Your task to perform on an android device: open app "Expedia: Hotels, Flights & Car" Image 0: 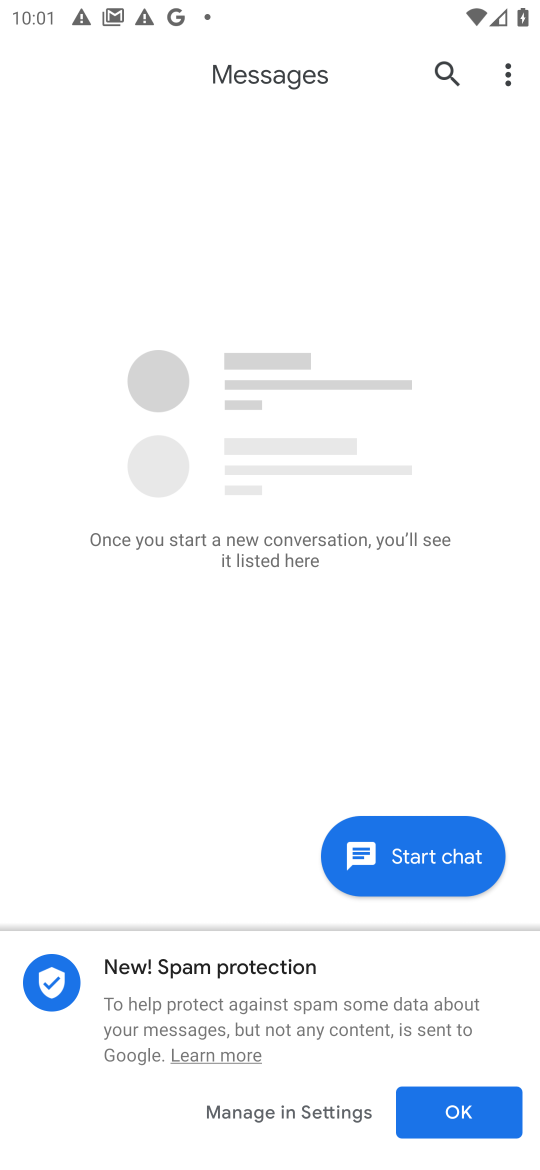
Step 0: press home button
Your task to perform on an android device: open app "Expedia: Hotels, Flights & Car" Image 1: 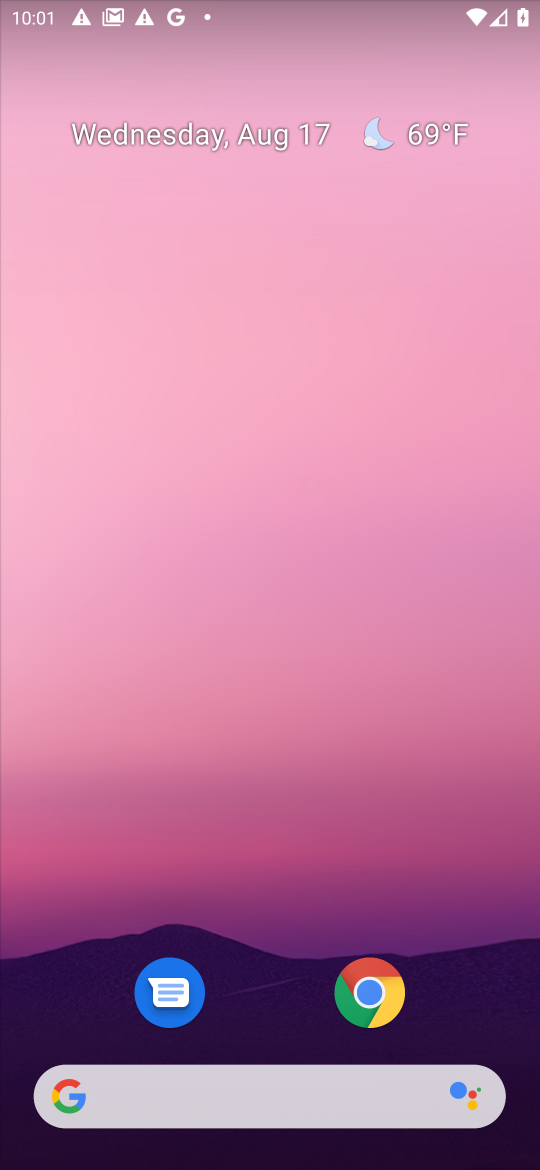
Step 1: drag from (461, 974) to (529, 1126)
Your task to perform on an android device: open app "Expedia: Hotels, Flights & Car" Image 2: 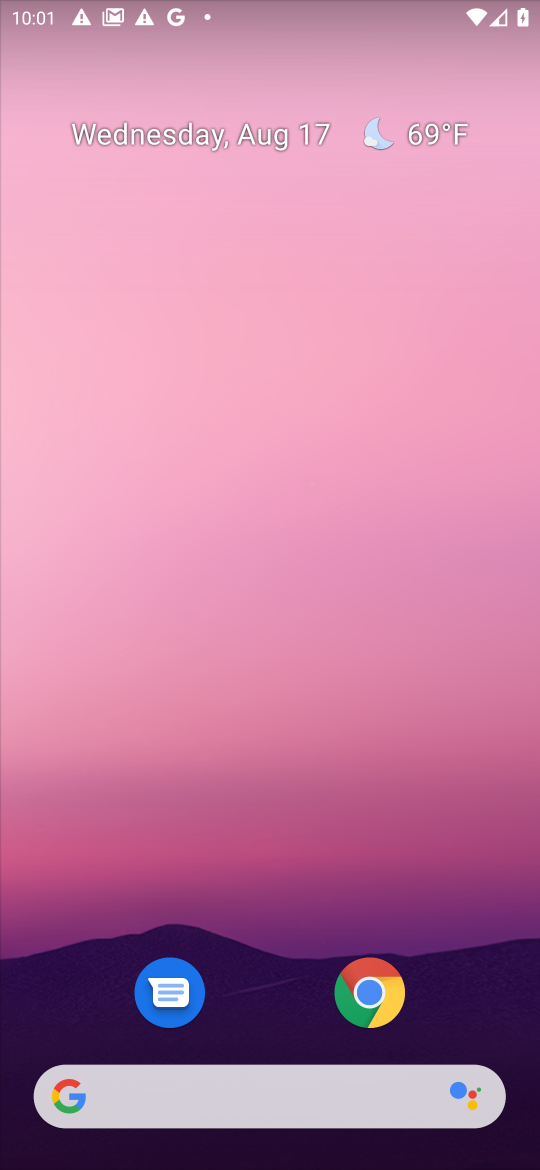
Step 2: drag from (500, 1004) to (440, 47)
Your task to perform on an android device: open app "Expedia: Hotels, Flights & Car" Image 3: 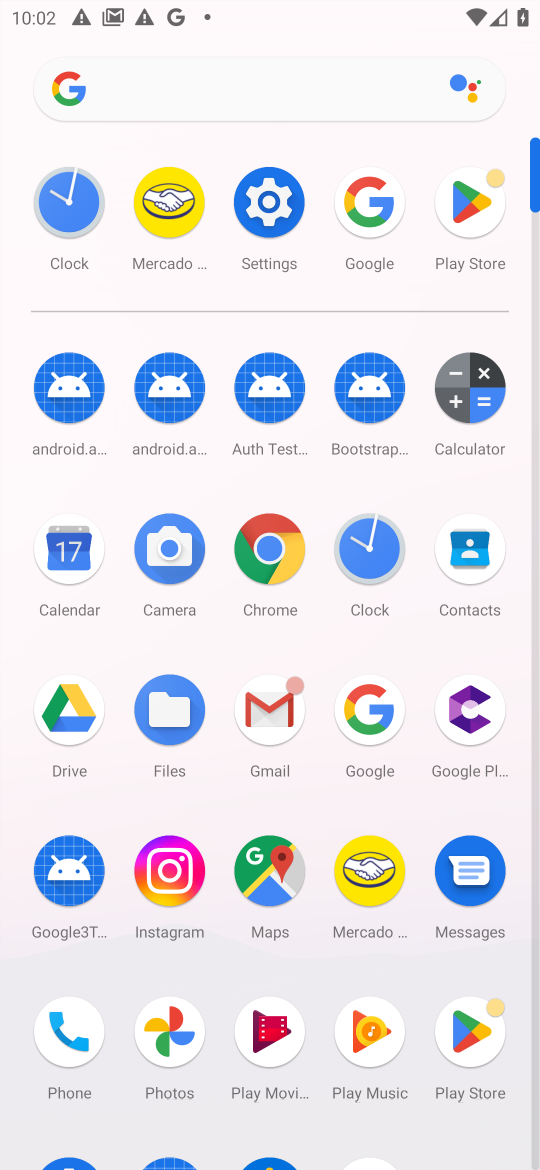
Step 3: click (469, 207)
Your task to perform on an android device: open app "Expedia: Hotels, Flights & Car" Image 4: 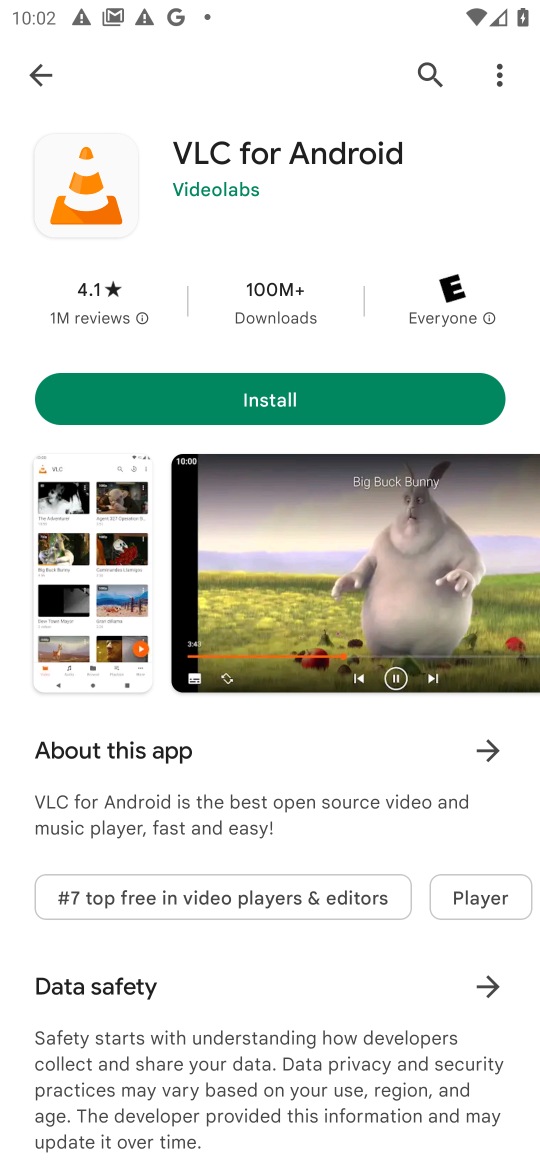
Step 4: press back button
Your task to perform on an android device: open app "Expedia: Hotels, Flights & Car" Image 5: 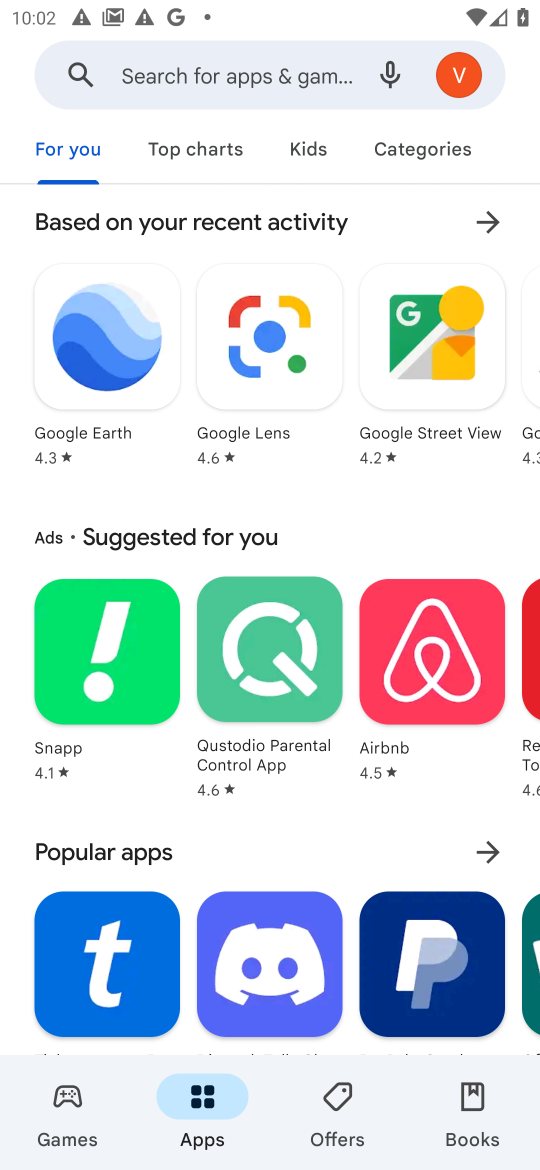
Step 5: click (217, 83)
Your task to perform on an android device: open app "Expedia: Hotels, Flights & Car" Image 6: 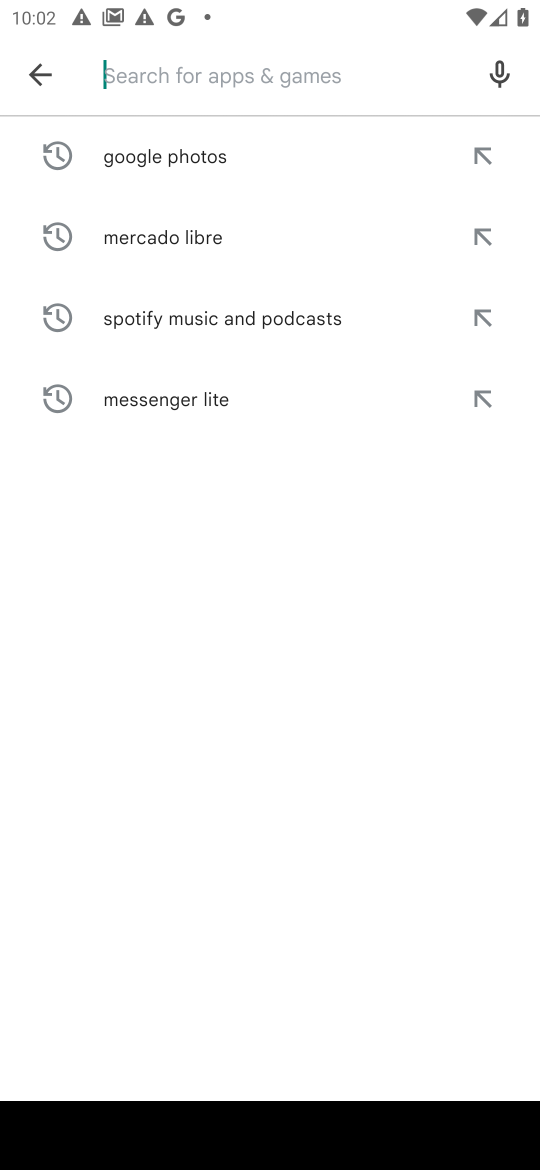
Step 6: type "Expedia: Hotels, Flights & Car"
Your task to perform on an android device: open app "Expedia: Hotels, Flights & Car" Image 7: 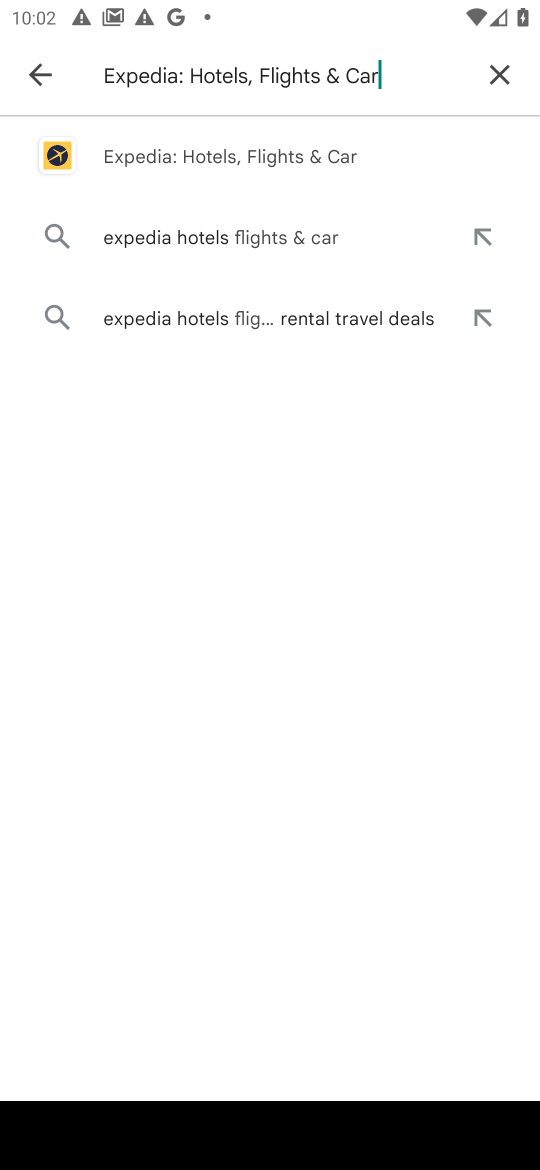
Step 7: click (183, 161)
Your task to perform on an android device: open app "Expedia: Hotels, Flights & Car" Image 8: 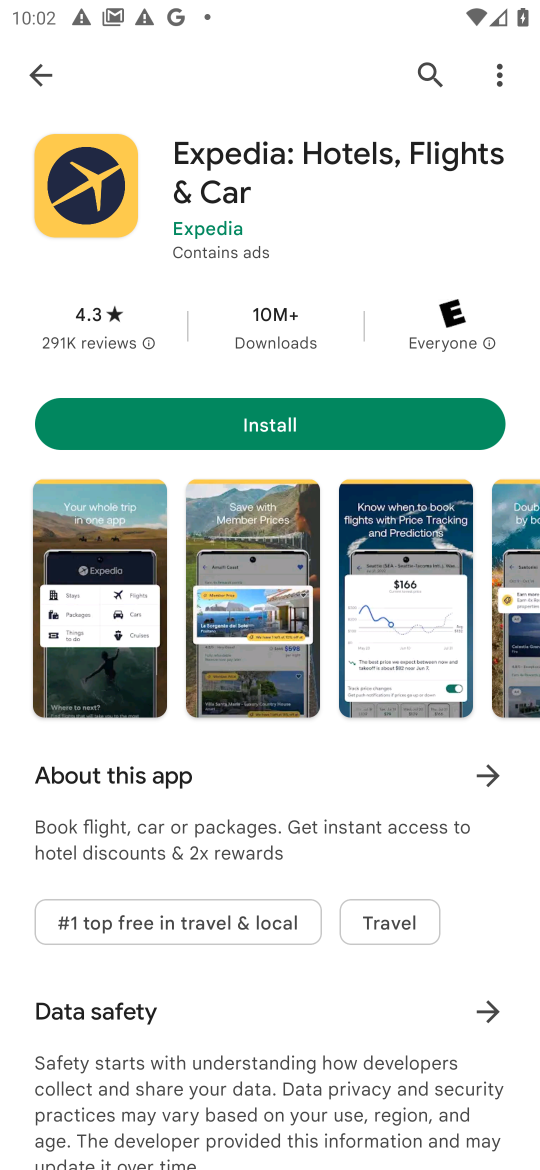
Step 8: task complete